Your task to perform on an android device: When is my next meeting? Image 0: 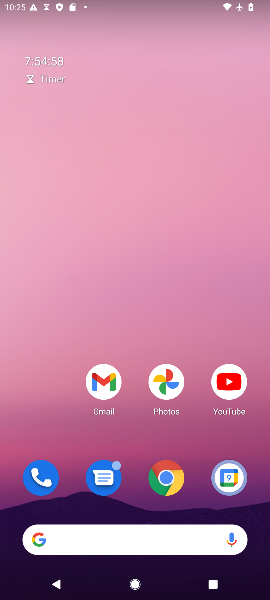
Step 0: drag from (196, 355) to (159, 90)
Your task to perform on an android device: When is my next meeting? Image 1: 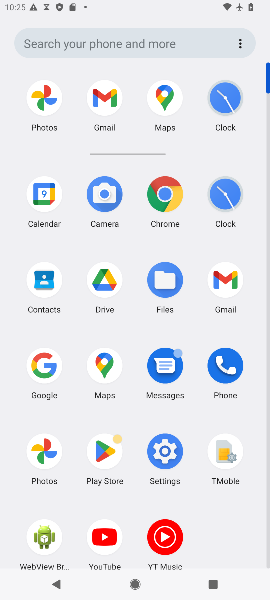
Step 1: click (48, 211)
Your task to perform on an android device: When is my next meeting? Image 2: 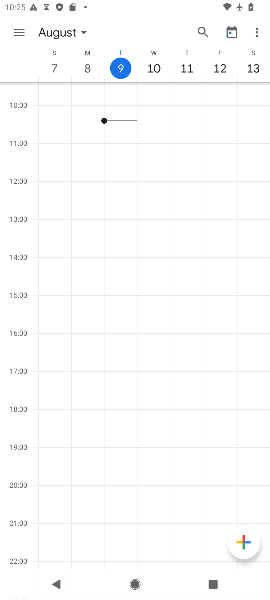
Step 2: click (12, 45)
Your task to perform on an android device: When is my next meeting? Image 3: 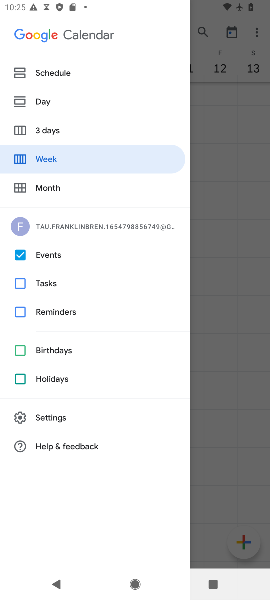
Step 3: click (43, 71)
Your task to perform on an android device: When is my next meeting? Image 4: 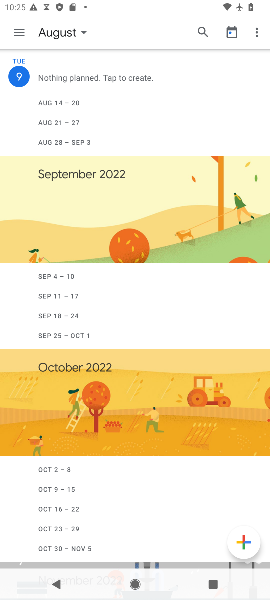
Step 4: task complete